Your task to perform on an android device: Go to sound settings Image 0: 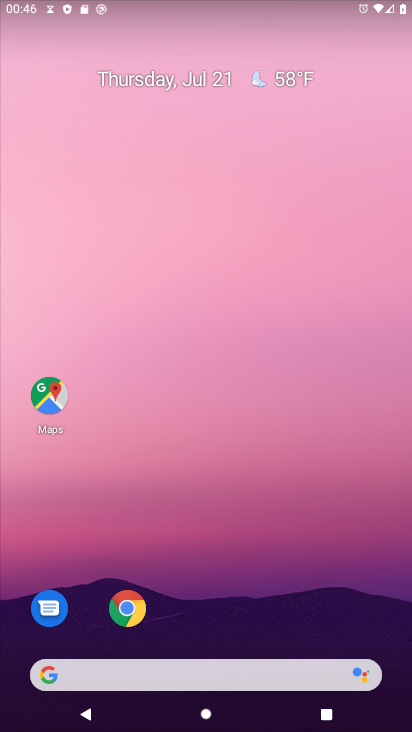
Step 0: drag from (199, 649) to (207, 0)
Your task to perform on an android device: Go to sound settings Image 1: 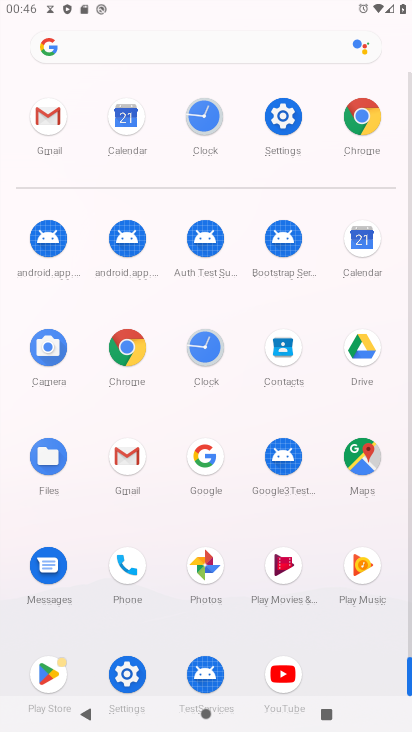
Step 1: click (278, 110)
Your task to perform on an android device: Go to sound settings Image 2: 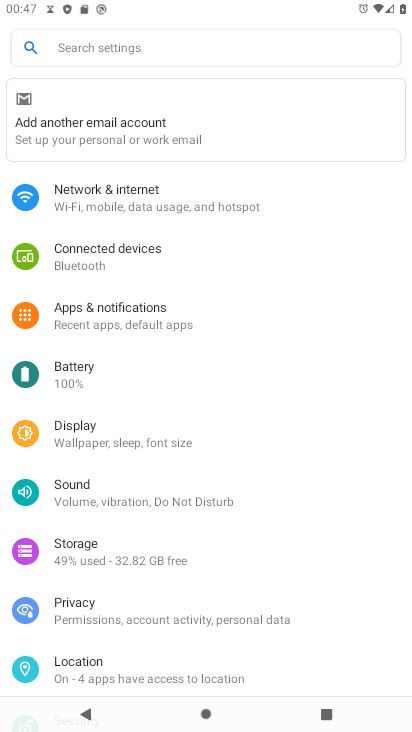
Step 2: click (102, 483)
Your task to perform on an android device: Go to sound settings Image 3: 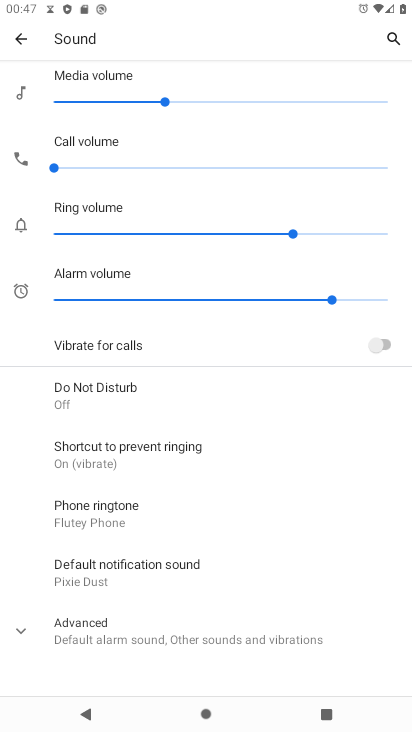
Step 3: click (18, 626)
Your task to perform on an android device: Go to sound settings Image 4: 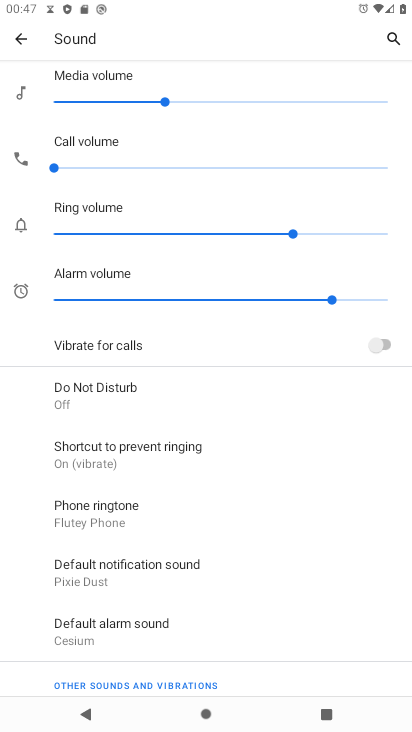
Step 4: task complete